Your task to perform on an android device: Do I have any events today? Image 0: 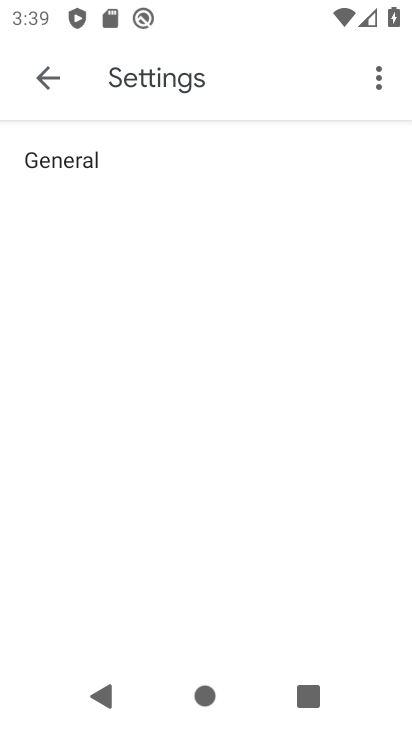
Step 0: press home button
Your task to perform on an android device: Do I have any events today? Image 1: 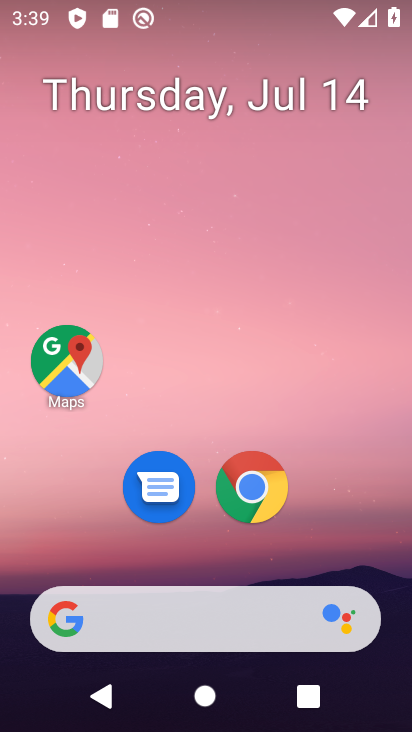
Step 1: drag from (180, 669) to (292, 67)
Your task to perform on an android device: Do I have any events today? Image 2: 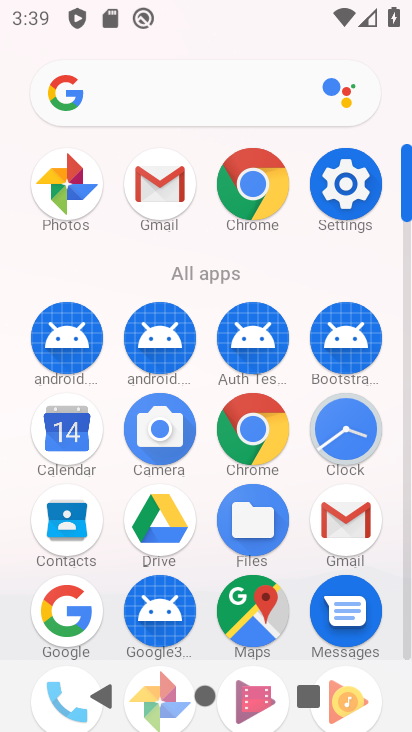
Step 2: drag from (255, 489) to (263, 252)
Your task to perform on an android device: Do I have any events today? Image 3: 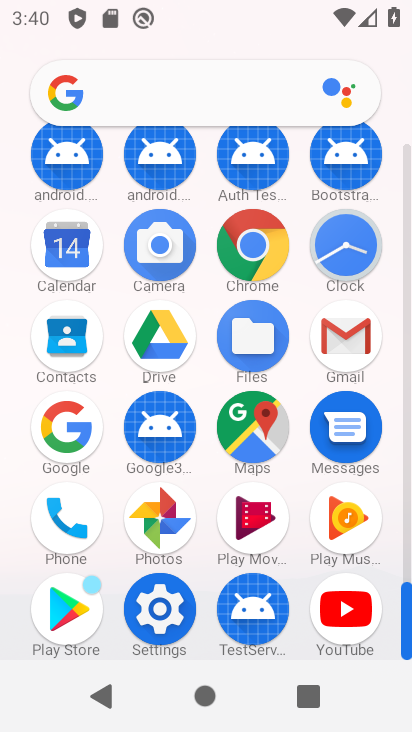
Step 3: click (80, 268)
Your task to perform on an android device: Do I have any events today? Image 4: 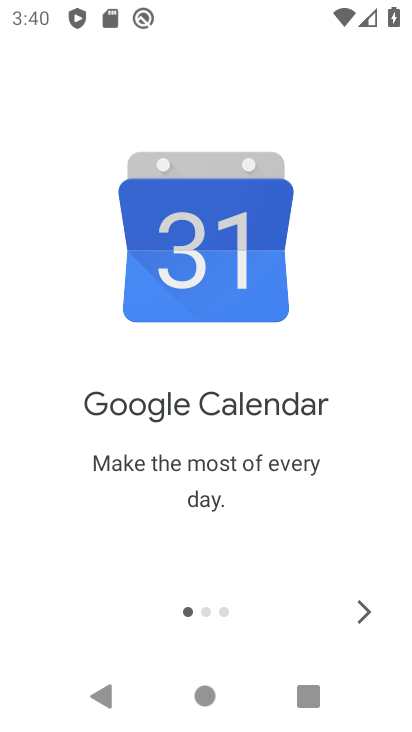
Step 4: click (361, 615)
Your task to perform on an android device: Do I have any events today? Image 5: 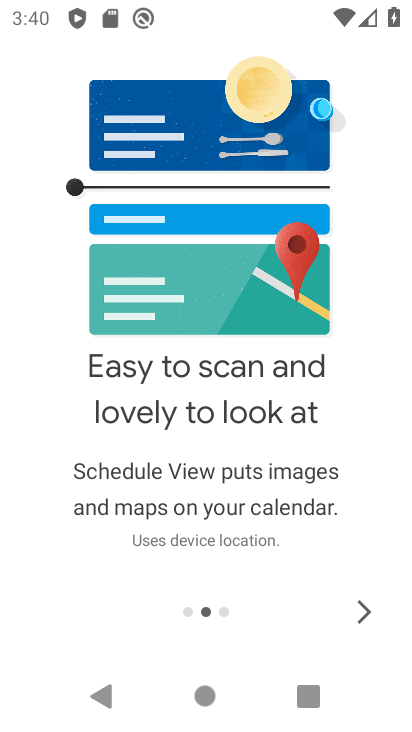
Step 5: click (372, 615)
Your task to perform on an android device: Do I have any events today? Image 6: 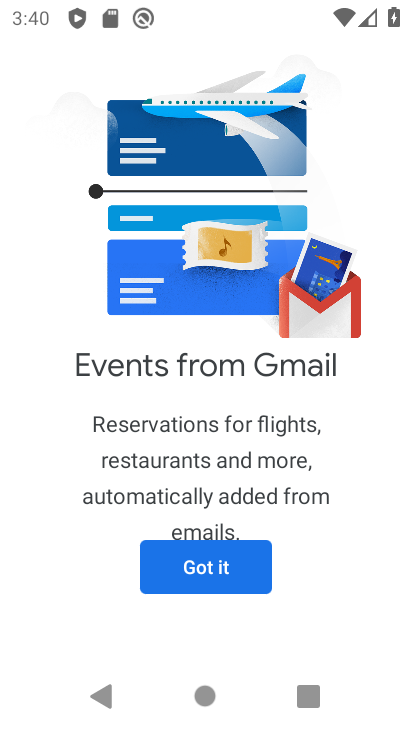
Step 6: click (233, 580)
Your task to perform on an android device: Do I have any events today? Image 7: 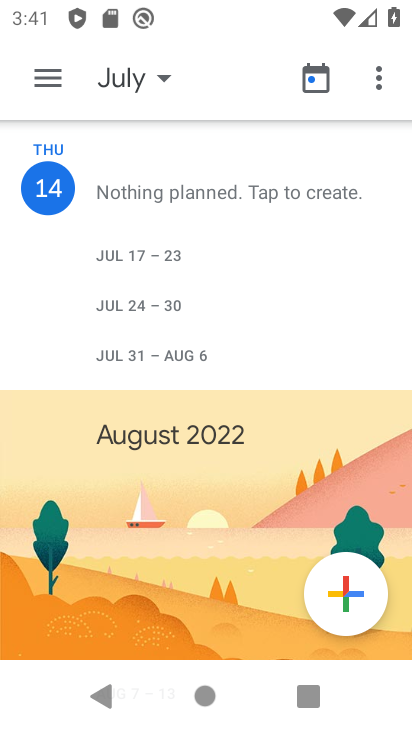
Step 7: task complete